Your task to perform on an android device: star an email in the gmail app Image 0: 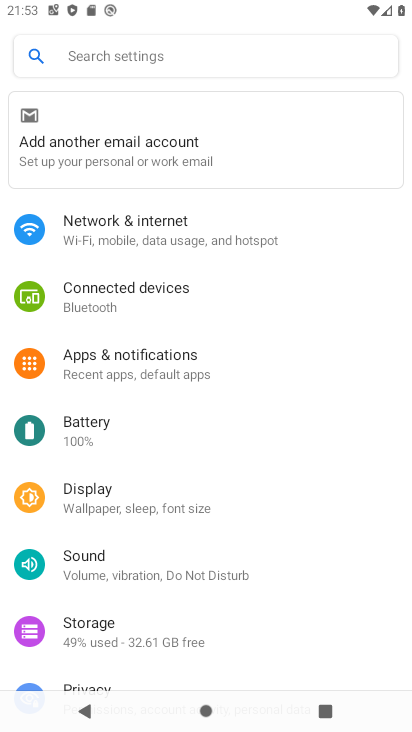
Step 0: press home button
Your task to perform on an android device: star an email in the gmail app Image 1: 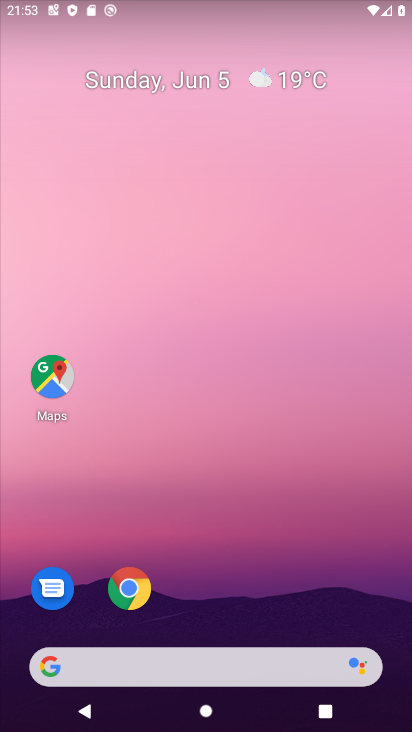
Step 1: drag from (352, 593) to (372, 167)
Your task to perform on an android device: star an email in the gmail app Image 2: 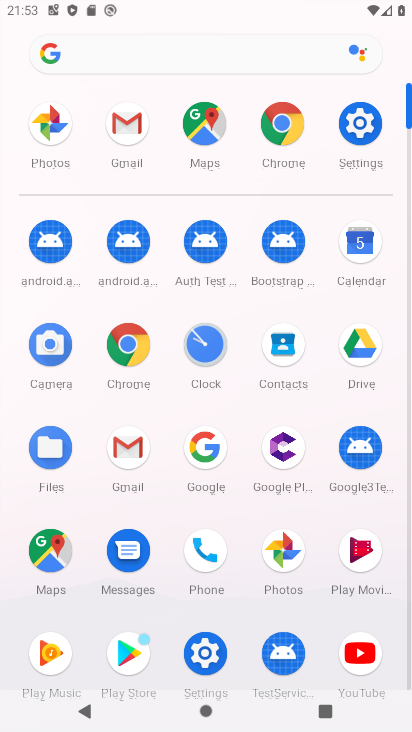
Step 2: click (132, 452)
Your task to perform on an android device: star an email in the gmail app Image 3: 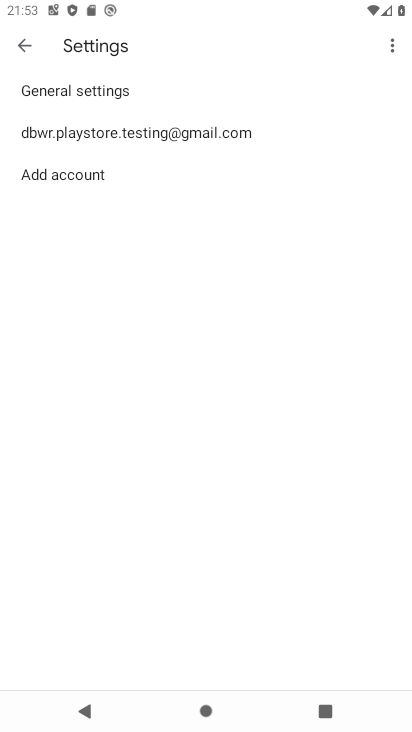
Step 3: press back button
Your task to perform on an android device: star an email in the gmail app Image 4: 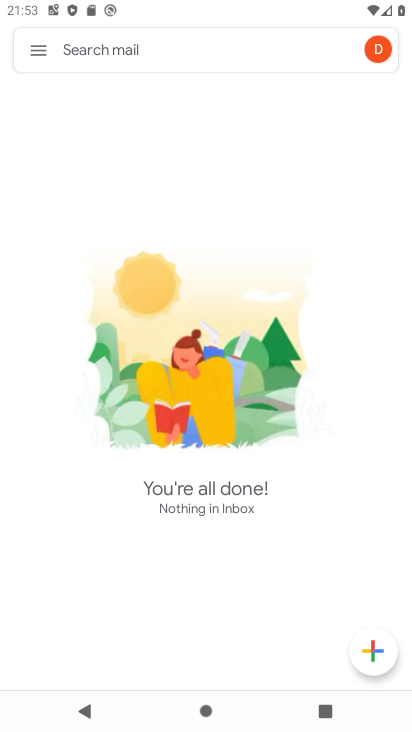
Step 4: click (35, 54)
Your task to perform on an android device: star an email in the gmail app Image 5: 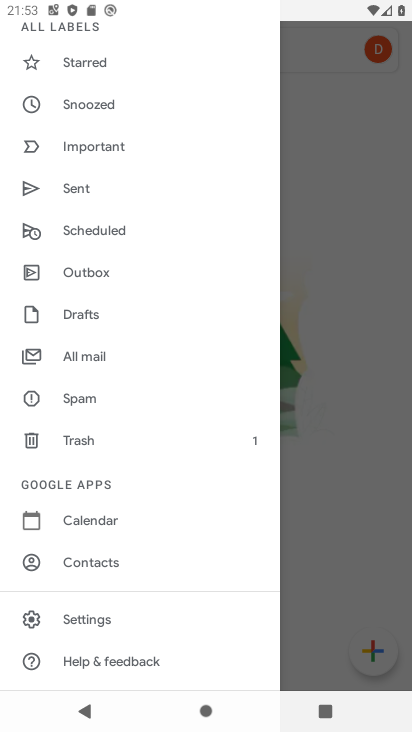
Step 5: drag from (204, 210) to (209, 335)
Your task to perform on an android device: star an email in the gmail app Image 6: 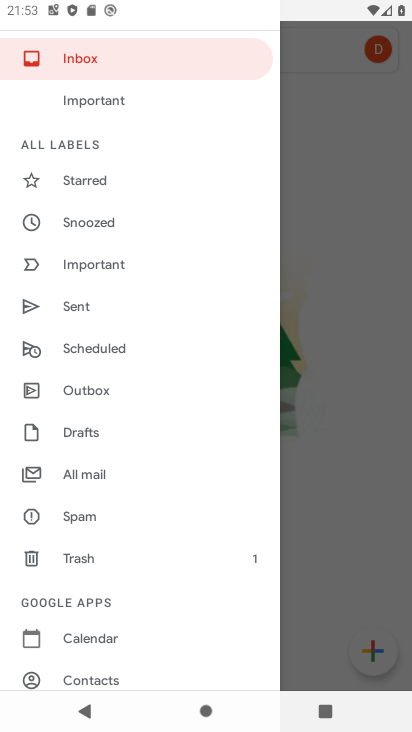
Step 6: drag from (199, 181) to (192, 328)
Your task to perform on an android device: star an email in the gmail app Image 7: 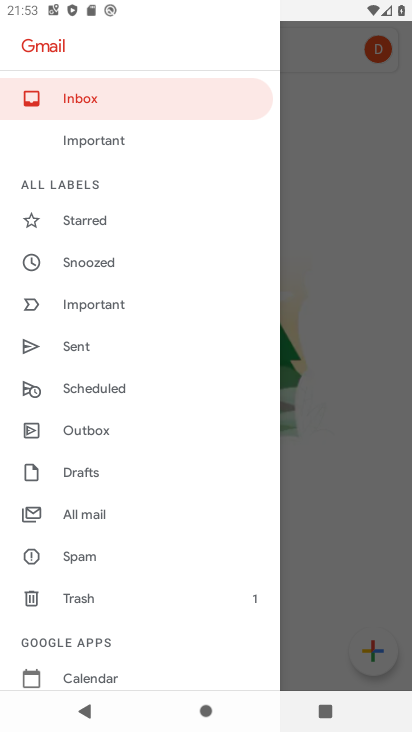
Step 7: click (168, 85)
Your task to perform on an android device: star an email in the gmail app Image 8: 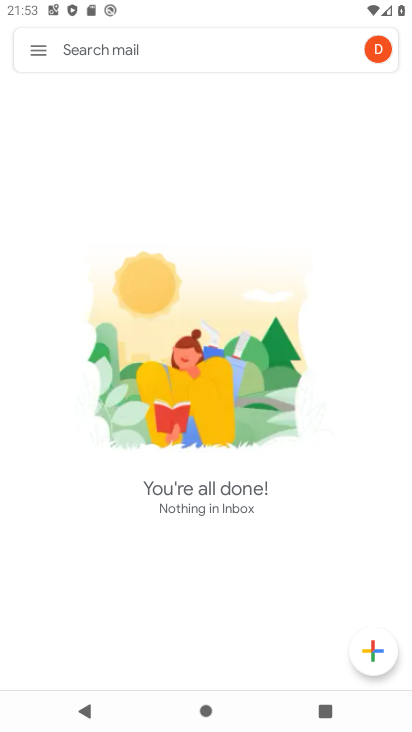
Step 8: task complete